Your task to perform on an android device: move a message to another label in the gmail app Image 0: 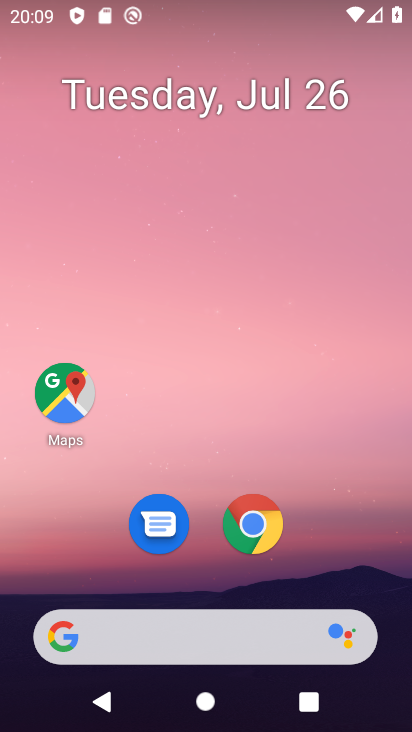
Step 0: drag from (203, 639) to (321, 211)
Your task to perform on an android device: move a message to another label in the gmail app Image 1: 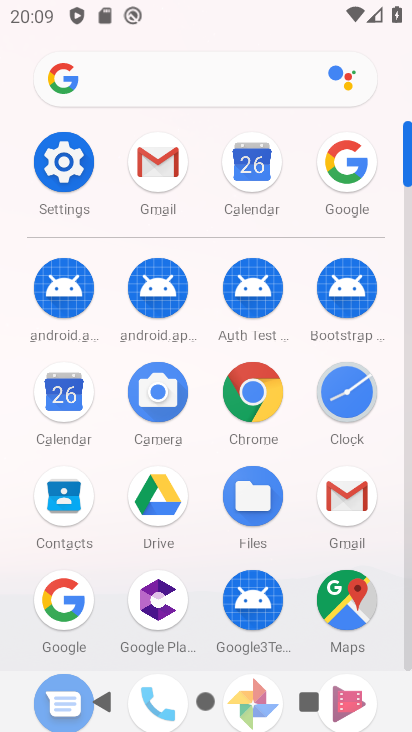
Step 1: click (159, 170)
Your task to perform on an android device: move a message to another label in the gmail app Image 2: 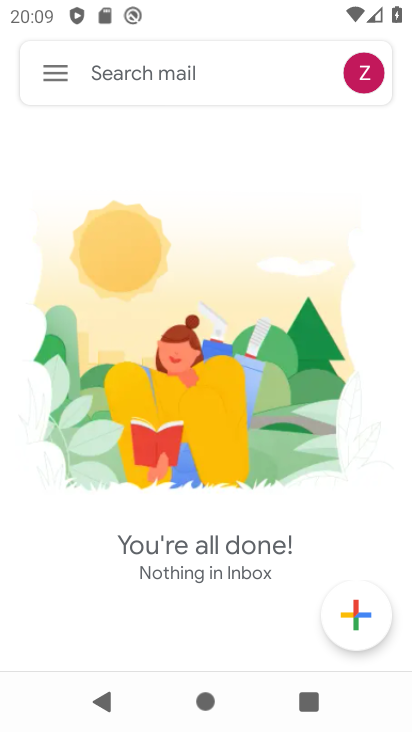
Step 2: task complete